Your task to perform on an android device: Open the map Image 0: 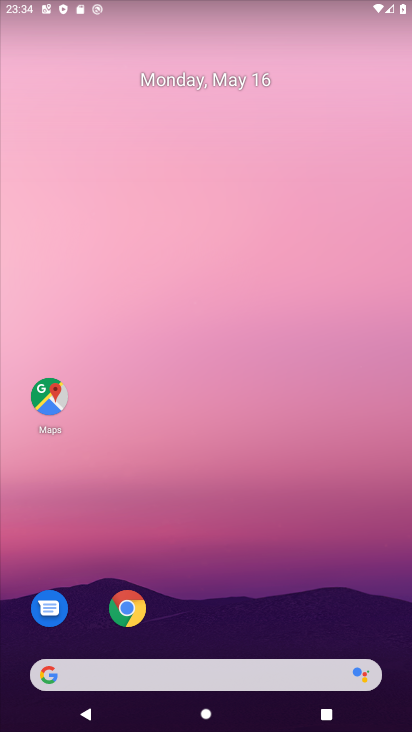
Step 0: press home button
Your task to perform on an android device: Open the map Image 1: 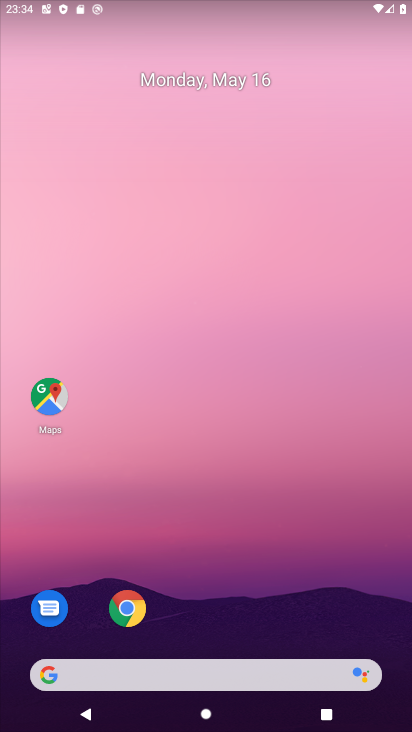
Step 1: click (49, 409)
Your task to perform on an android device: Open the map Image 2: 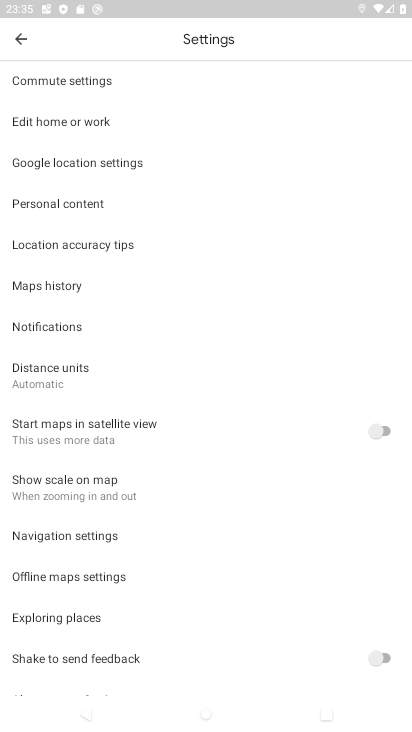
Step 2: click (12, 40)
Your task to perform on an android device: Open the map Image 3: 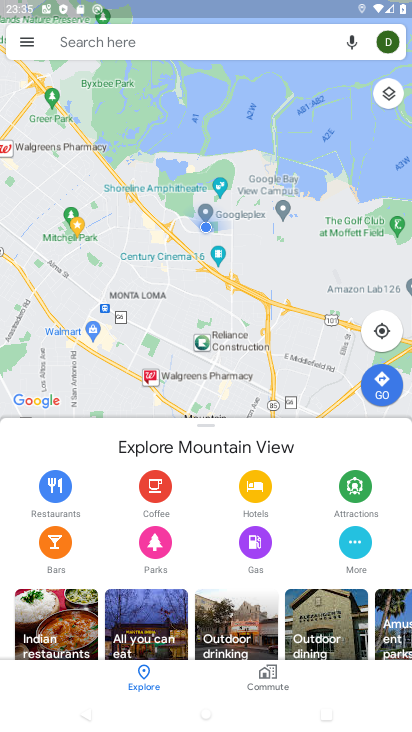
Step 3: task complete